Your task to perform on an android device: Go to Google maps Image 0: 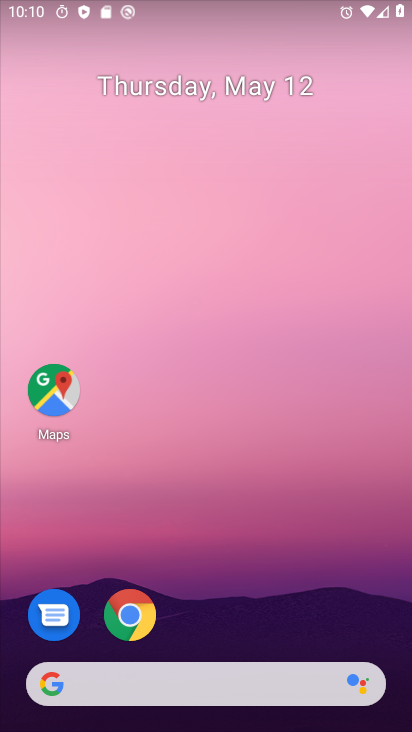
Step 0: drag from (285, 564) to (316, 129)
Your task to perform on an android device: Go to Google maps Image 1: 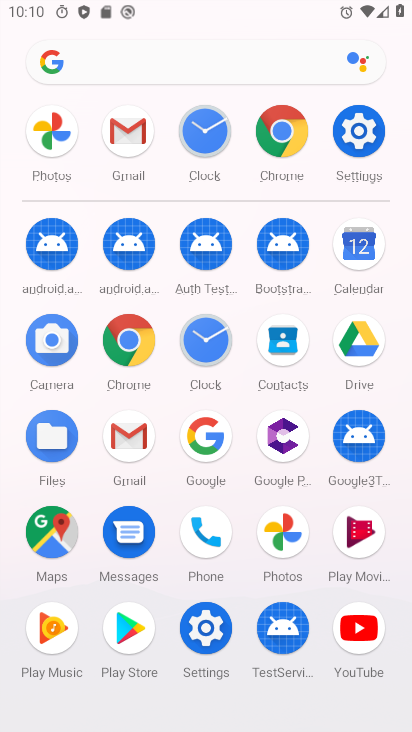
Step 1: click (56, 543)
Your task to perform on an android device: Go to Google maps Image 2: 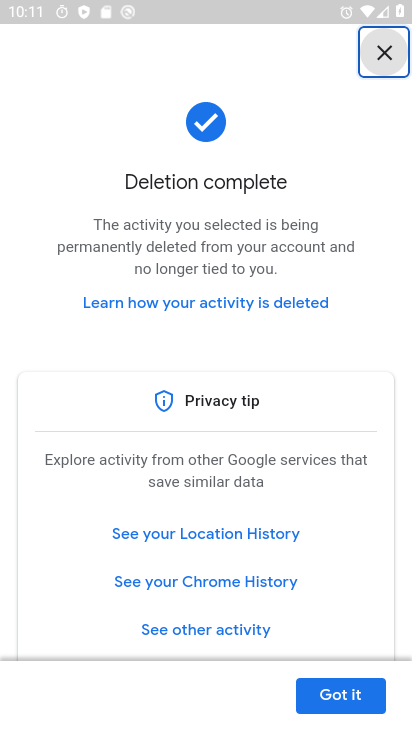
Step 2: click (320, 697)
Your task to perform on an android device: Go to Google maps Image 3: 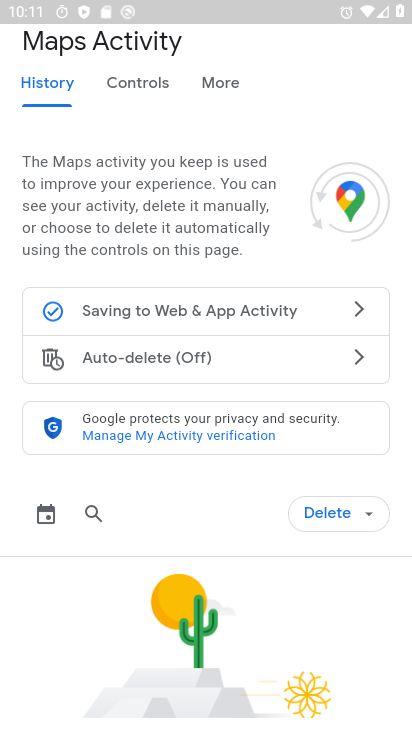
Step 3: task complete